Your task to perform on an android device: turn on javascript in the chrome app Image 0: 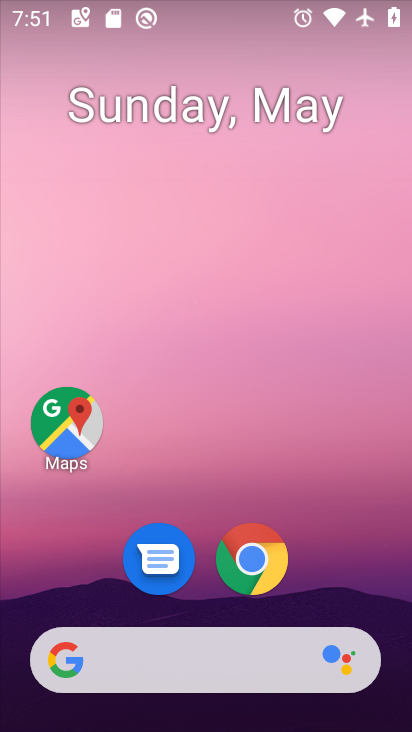
Step 0: click (251, 561)
Your task to perform on an android device: turn on javascript in the chrome app Image 1: 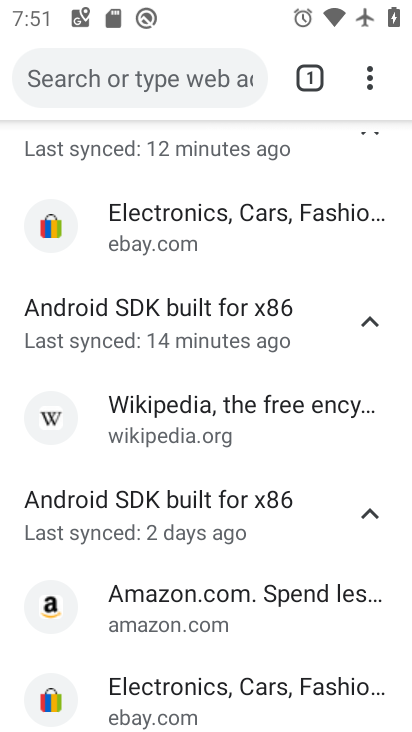
Step 1: drag from (370, 73) to (131, 623)
Your task to perform on an android device: turn on javascript in the chrome app Image 2: 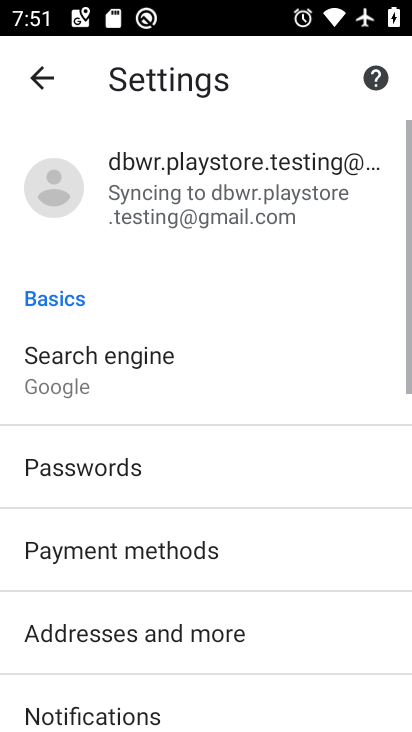
Step 2: drag from (179, 660) to (303, 156)
Your task to perform on an android device: turn on javascript in the chrome app Image 3: 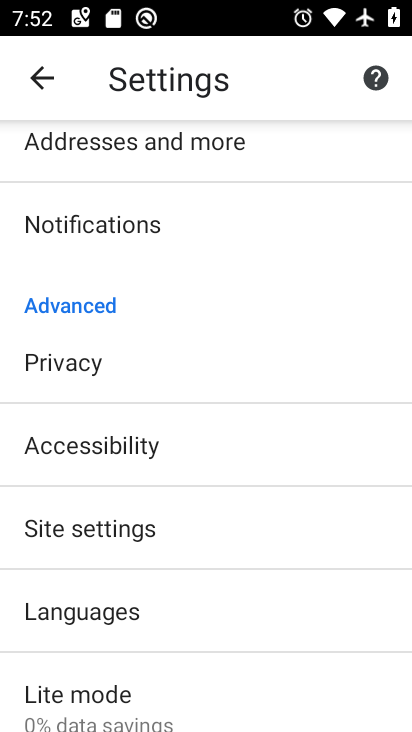
Step 3: click (112, 529)
Your task to perform on an android device: turn on javascript in the chrome app Image 4: 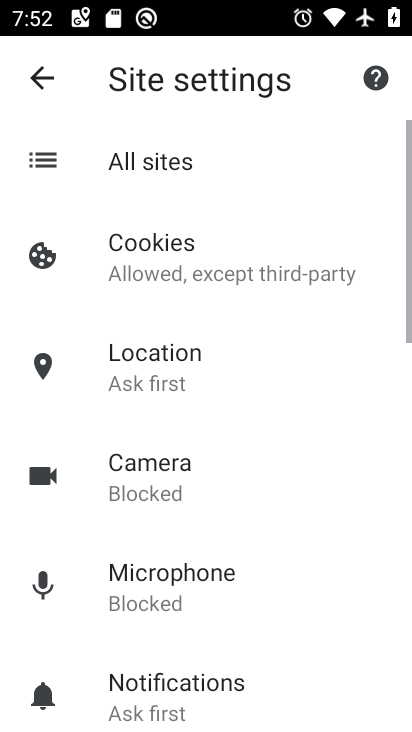
Step 4: drag from (247, 646) to (330, 315)
Your task to perform on an android device: turn on javascript in the chrome app Image 5: 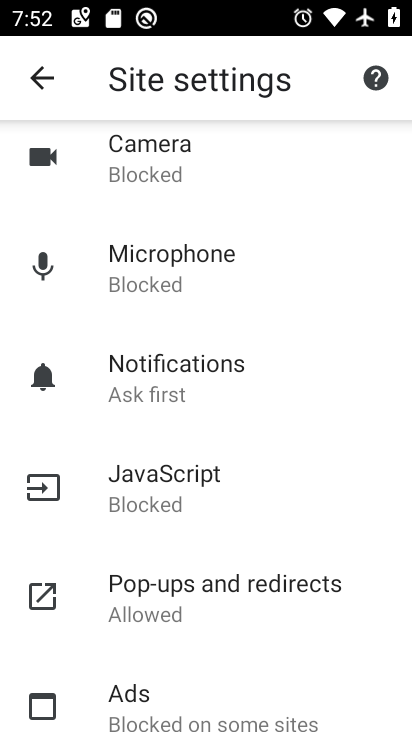
Step 5: click (132, 486)
Your task to perform on an android device: turn on javascript in the chrome app Image 6: 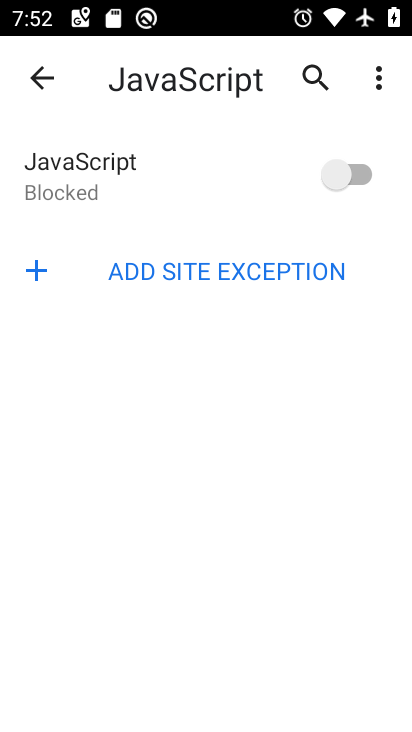
Step 6: click (361, 164)
Your task to perform on an android device: turn on javascript in the chrome app Image 7: 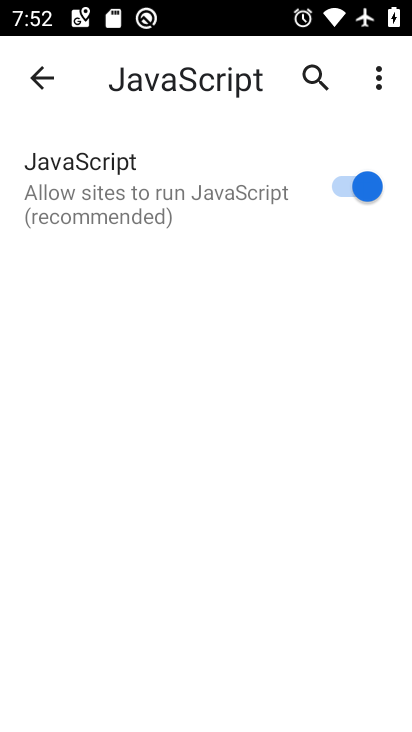
Step 7: task complete